Your task to perform on an android device: Turn on the flashlight Image 0: 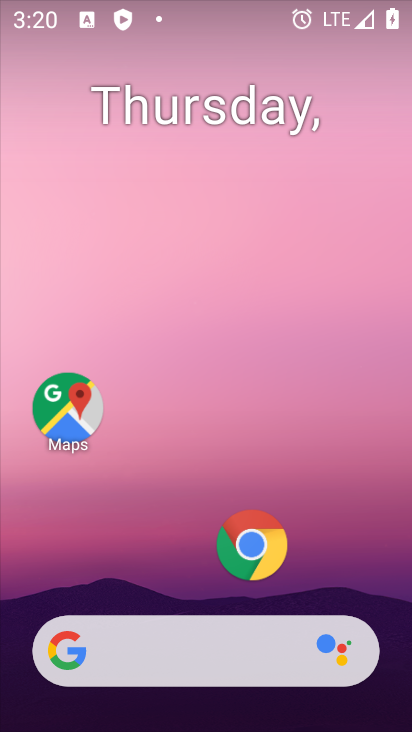
Step 0: drag from (307, 625) to (382, 9)
Your task to perform on an android device: Turn on the flashlight Image 1: 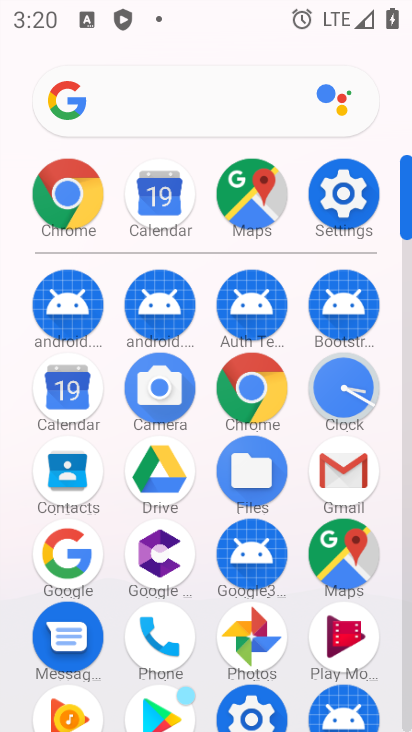
Step 1: click (367, 201)
Your task to perform on an android device: Turn on the flashlight Image 2: 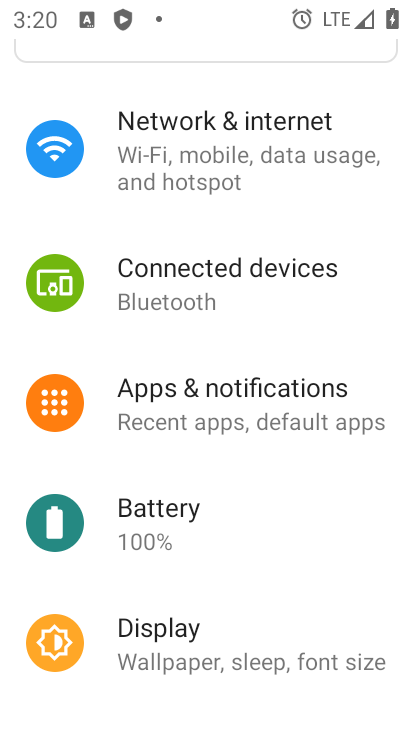
Step 2: drag from (240, 169) to (258, 680)
Your task to perform on an android device: Turn on the flashlight Image 3: 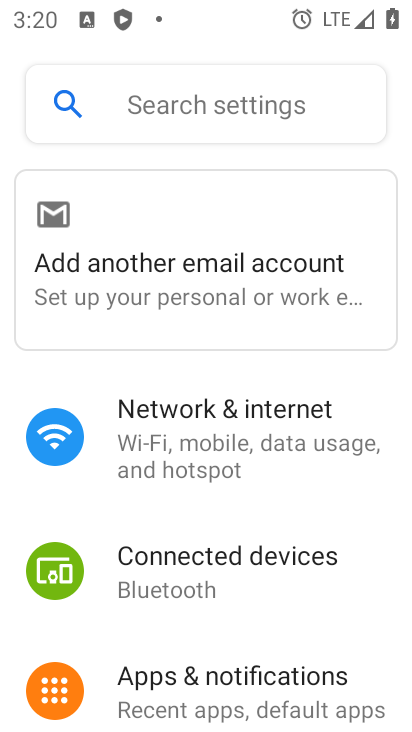
Step 3: click (304, 448)
Your task to perform on an android device: Turn on the flashlight Image 4: 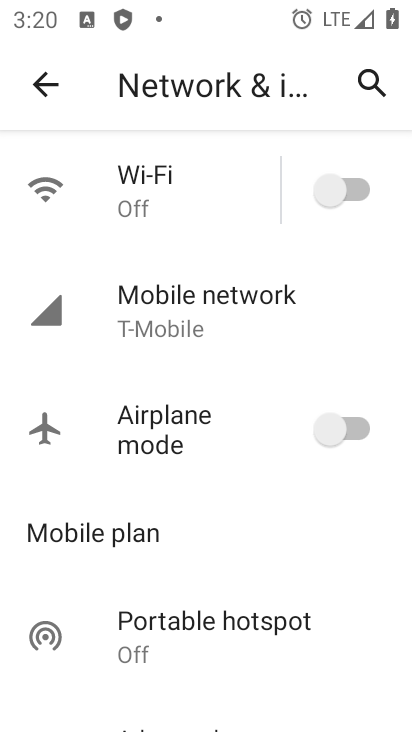
Step 4: task complete